Your task to perform on an android device: Open calendar and show me the fourth week of next month Image 0: 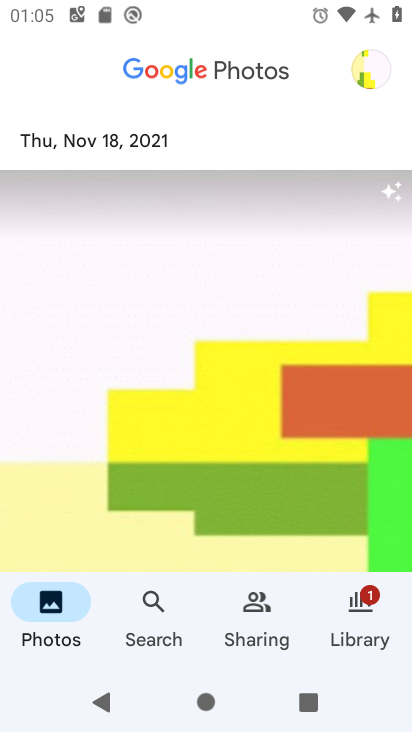
Step 0: press home button
Your task to perform on an android device: Open calendar and show me the fourth week of next month Image 1: 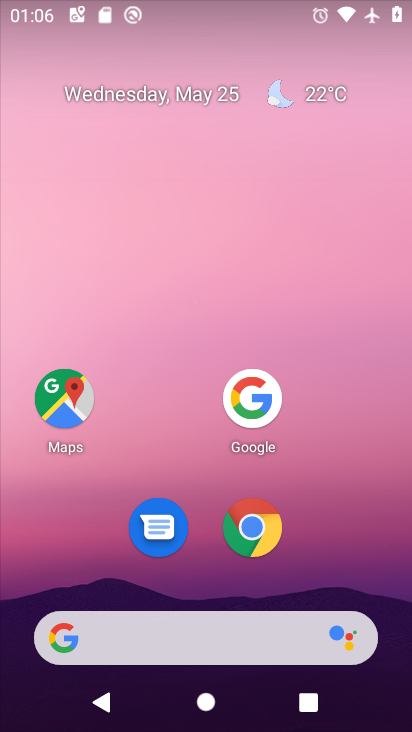
Step 1: drag from (158, 643) to (287, 126)
Your task to perform on an android device: Open calendar and show me the fourth week of next month Image 2: 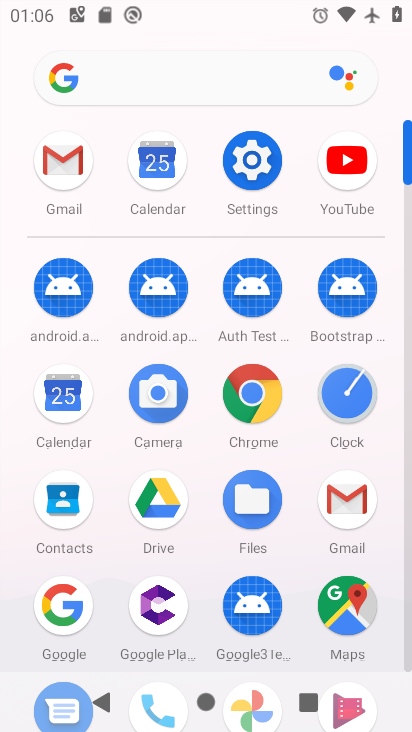
Step 2: click (63, 405)
Your task to perform on an android device: Open calendar and show me the fourth week of next month Image 3: 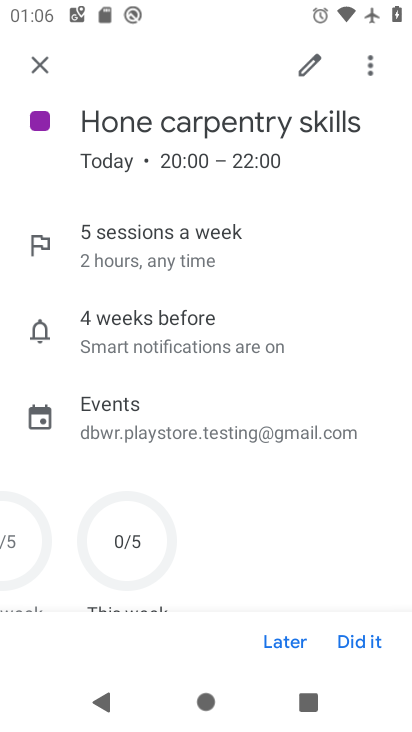
Step 3: click (42, 67)
Your task to perform on an android device: Open calendar and show me the fourth week of next month Image 4: 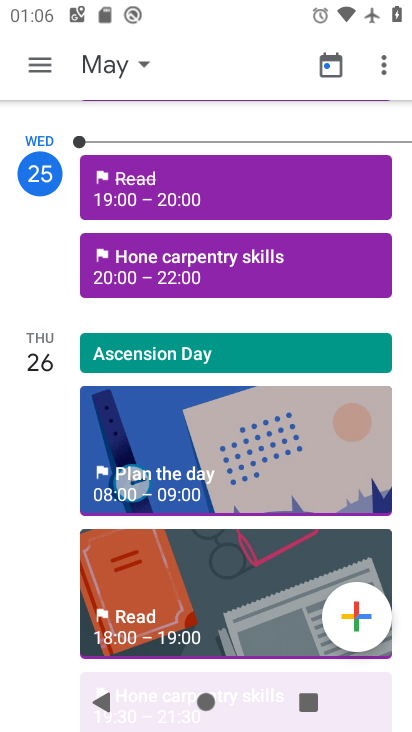
Step 4: click (103, 58)
Your task to perform on an android device: Open calendar and show me the fourth week of next month Image 5: 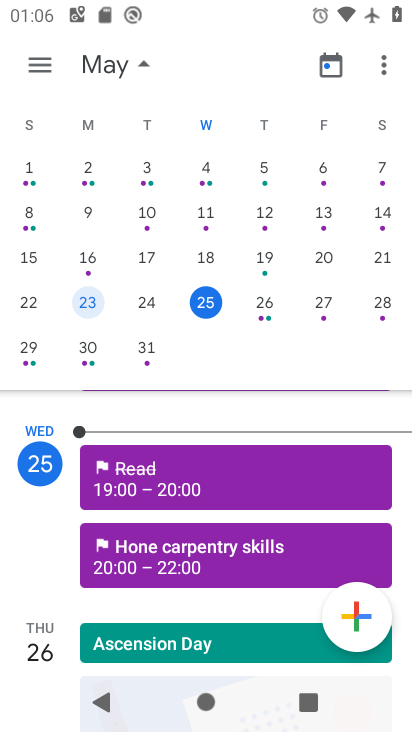
Step 5: drag from (365, 246) to (42, 245)
Your task to perform on an android device: Open calendar and show me the fourth week of next month Image 6: 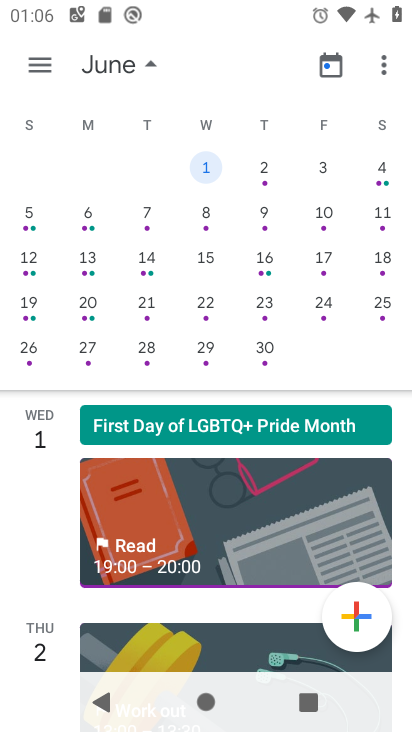
Step 6: click (28, 299)
Your task to perform on an android device: Open calendar and show me the fourth week of next month Image 7: 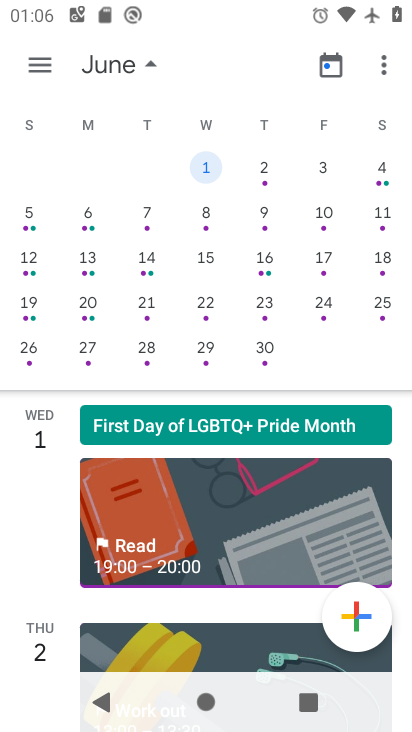
Step 7: click (35, 300)
Your task to perform on an android device: Open calendar and show me the fourth week of next month Image 8: 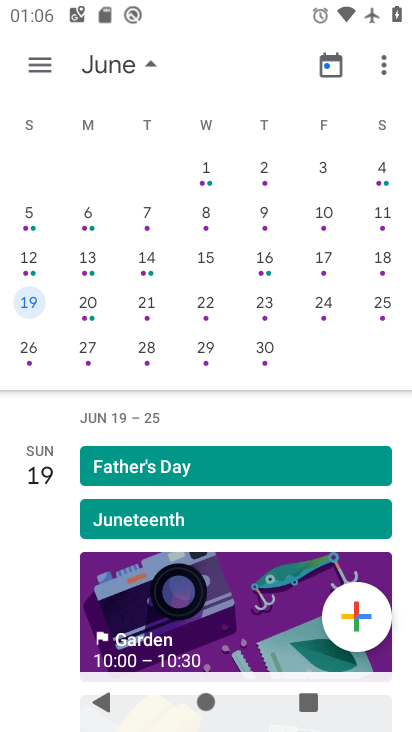
Step 8: click (43, 66)
Your task to perform on an android device: Open calendar and show me the fourth week of next month Image 9: 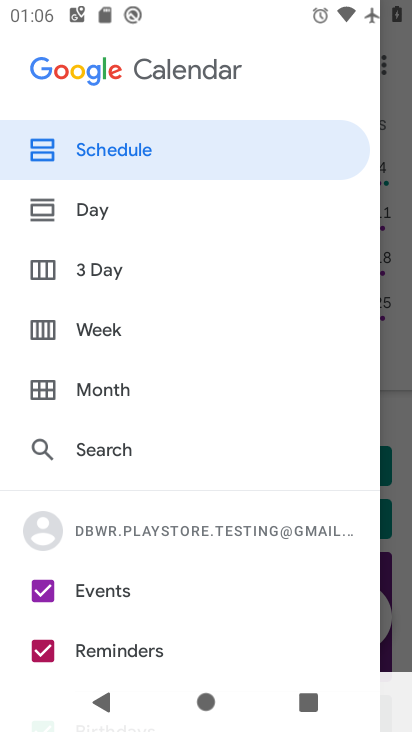
Step 9: click (97, 333)
Your task to perform on an android device: Open calendar and show me the fourth week of next month Image 10: 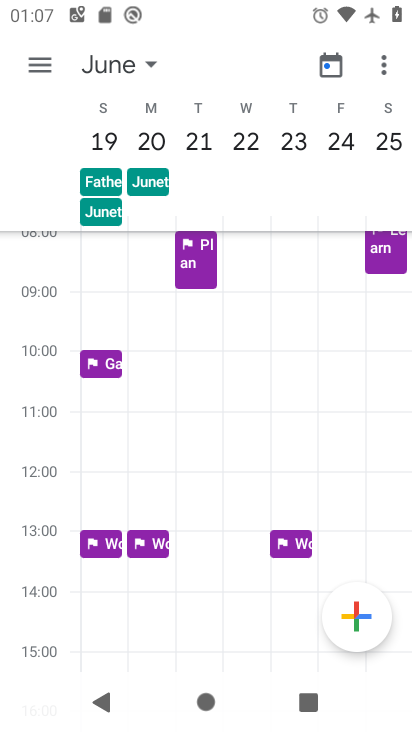
Step 10: task complete